Your task to perform on an android device: Open Chrome and go to settings Image 0: 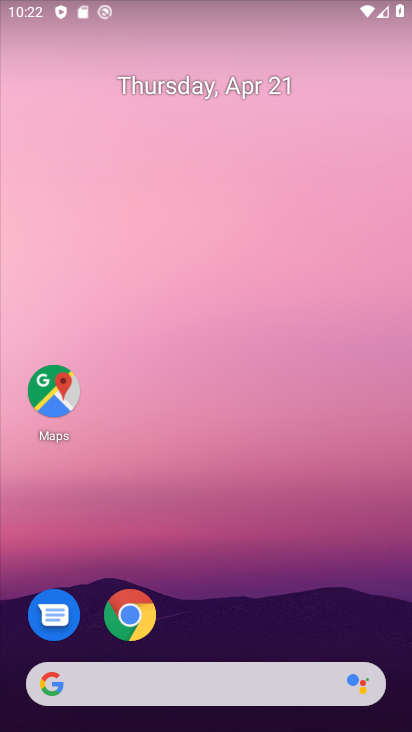
Step 0: drag from (319, 612) to (329, 281)
Your task to perform on an android device: Open Chrome and go to settings Image 1: 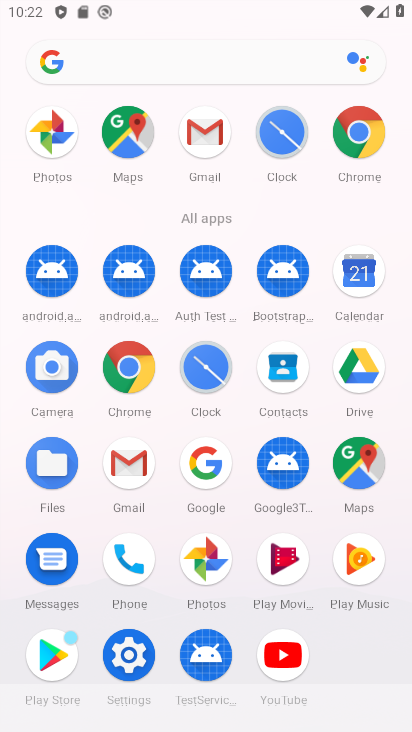
Step 1: click (361, 145)
Your task to perform on an android device: Open Chrome and go to settings Image 2: 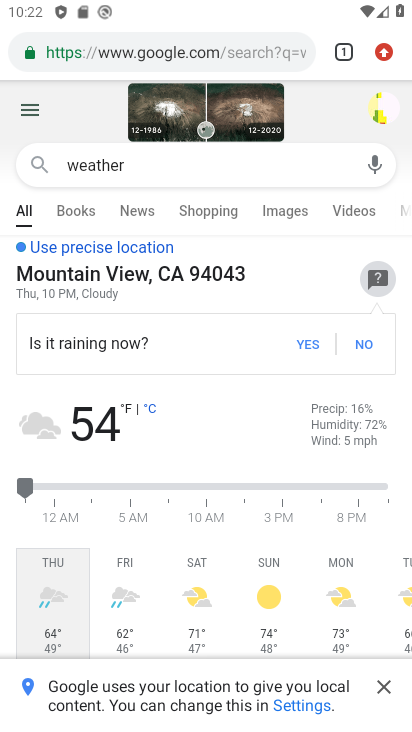
Step 2: task complete